Your task to perform on an android device: Open Chrome and go to the settings page Image 0: 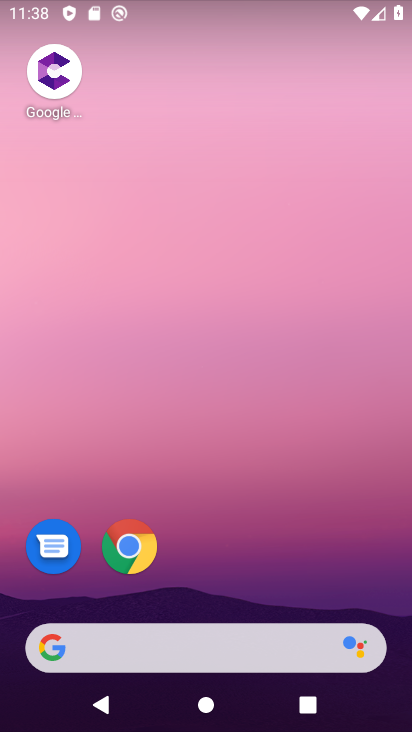
Step 0: click (121, 536)
Your task to perform on an android device: Open Chrome and go to the settings page Image 1: 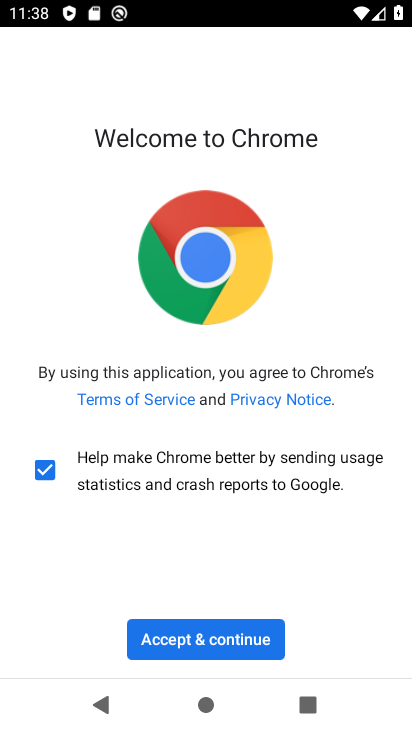
Step 1: click (260, 646)
Your task to perform on an android device: Open Chrome and go to the settings page Image 2: 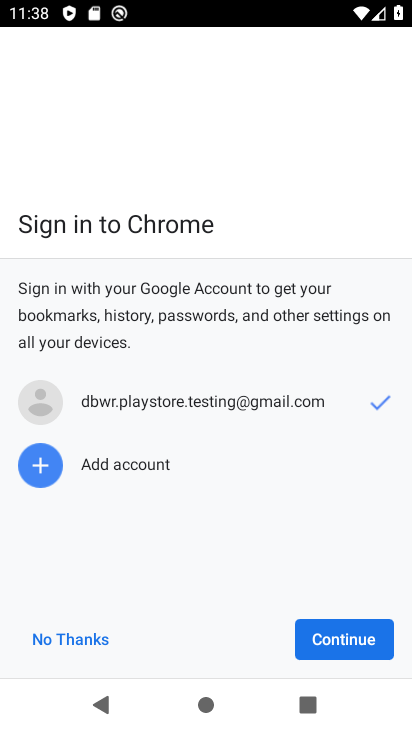
Step 2: click (379, 641)
Your task to perform on an android device: Open Chrome and go to the settings page Image 3: 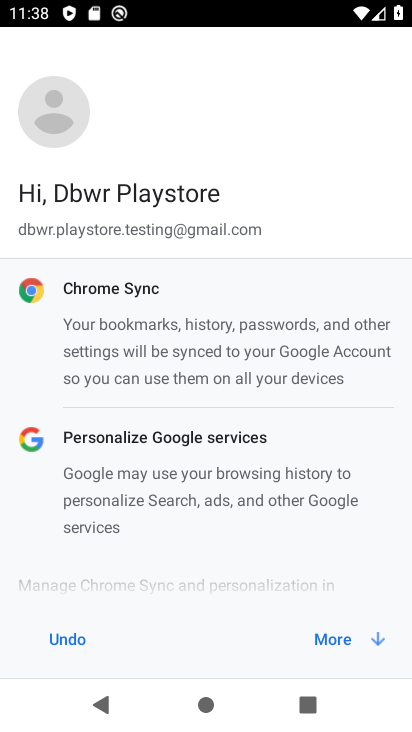
Step 3: click (363, 635)
Your task to perform on an android device: Open Chrome and go to the settings page Image 4: 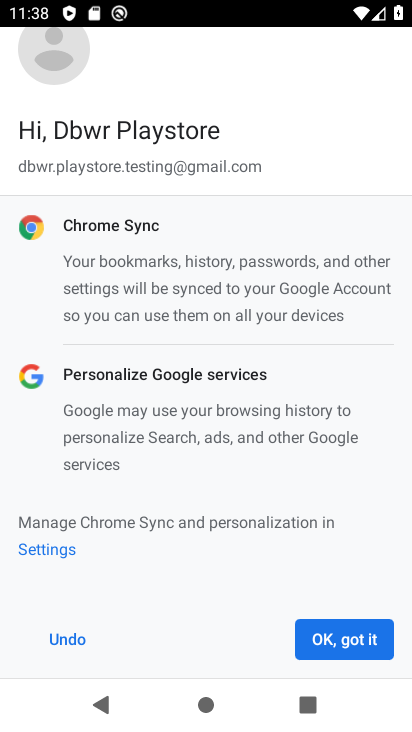
Step 4: click (362, 636)
Your task to perform on an android device: Open Chrome and go to the settings page Image 5: 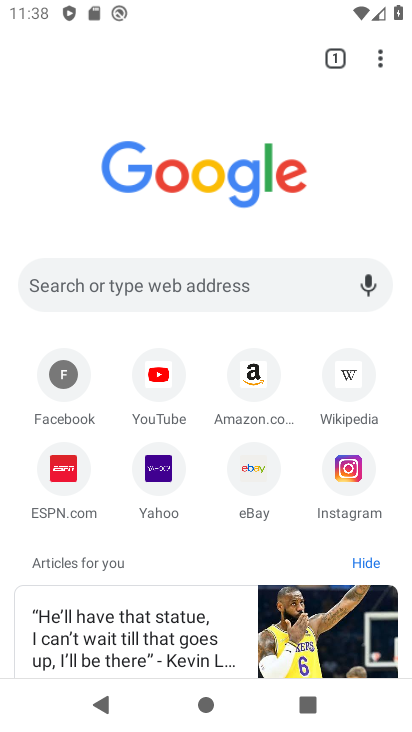
Step 5: task complete